Your task to perform on an android device: Go to Reddit.com Image 0: 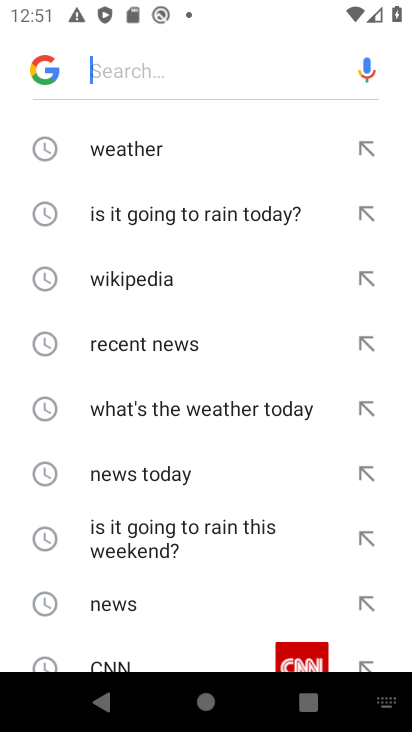
Step 0: press home button
Your task to perform on an android device: Go to Reddit.com Image 1: 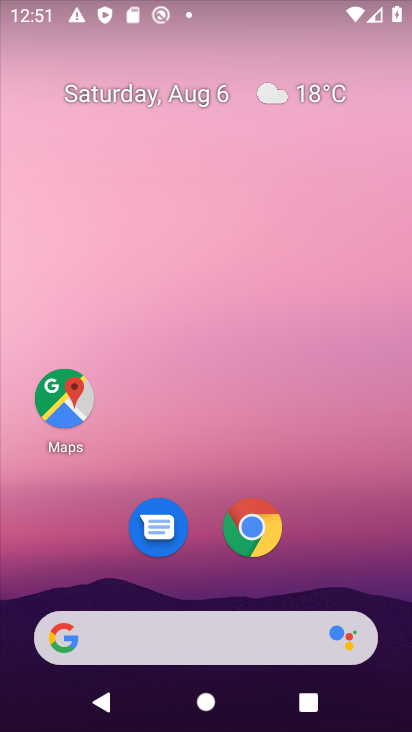
Step 1: drag from (218, 543) to (208, 33)
Your task to perform on an android device: Go to Reddit.com Image 2: 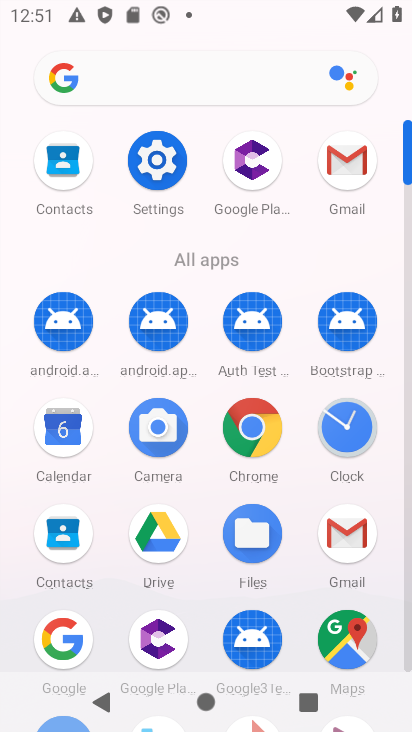
Step 2: click (259, 427)
Your task to perform on an android device: Go to Reddit.com Image 3: 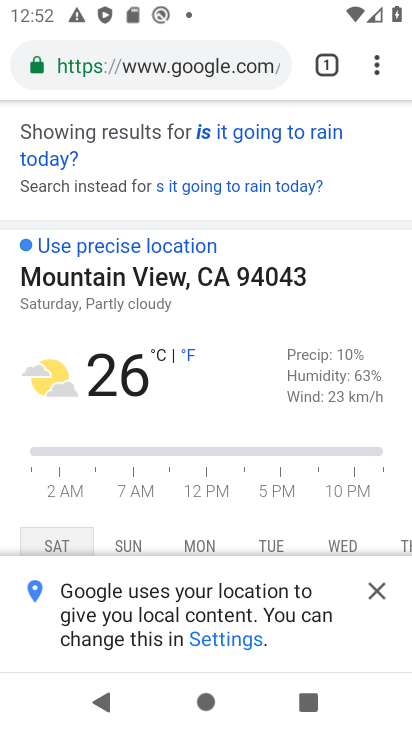
Step 3: click (320, 69)
Your task to perform on an android device: Go to Reddit.com Image 4: 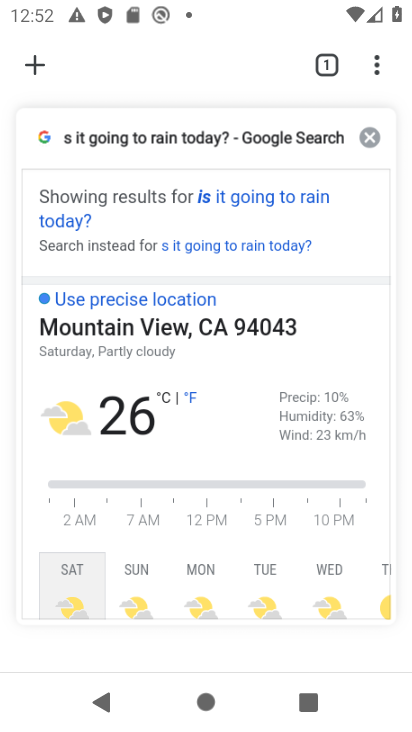
Step 4: click (36, 61)
Your task to perform on an android device: Go to Reddit.com Image 5: 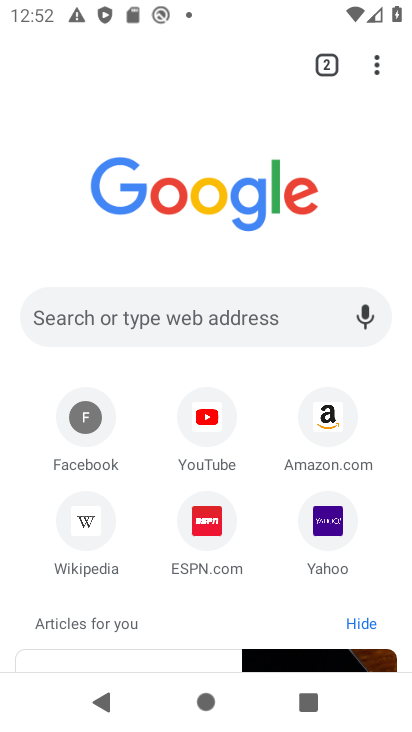
Step 5: drag from (111, 705) to (169, 679)
Your task to perform on an android device: Go to Reddit.com Image 6: 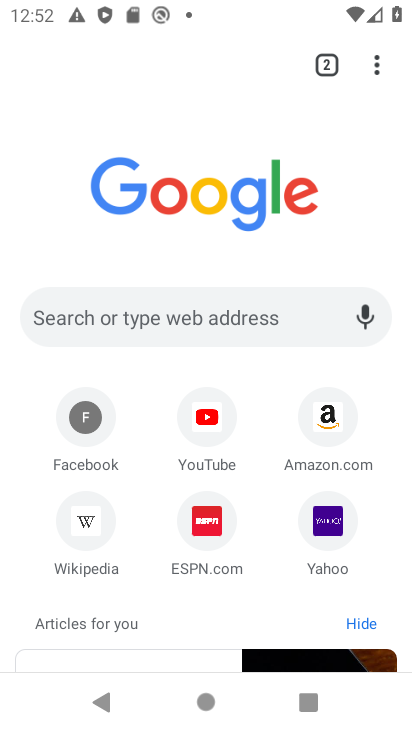
Step 6: click (188, 313)
Your task to perform on an android device: Go to Reddit.com Image 7: 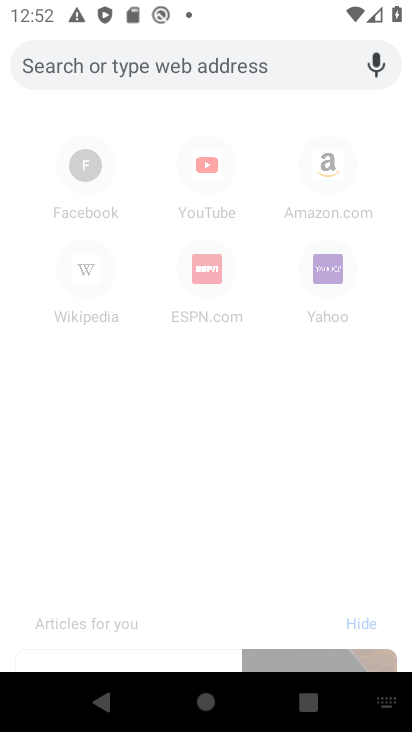
Step 7: type "Reddit.com"
Your task to perform on an android device: Go to Reddit.com Image 8: 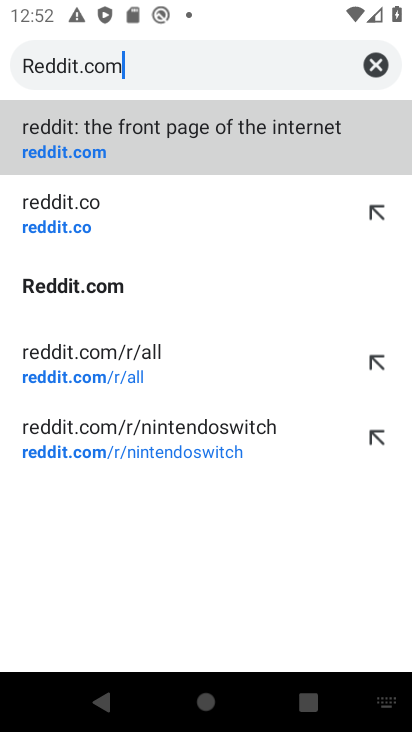
Step 8: type ""
Your task to perform on an android device: Go to Reddit.com Image 9: 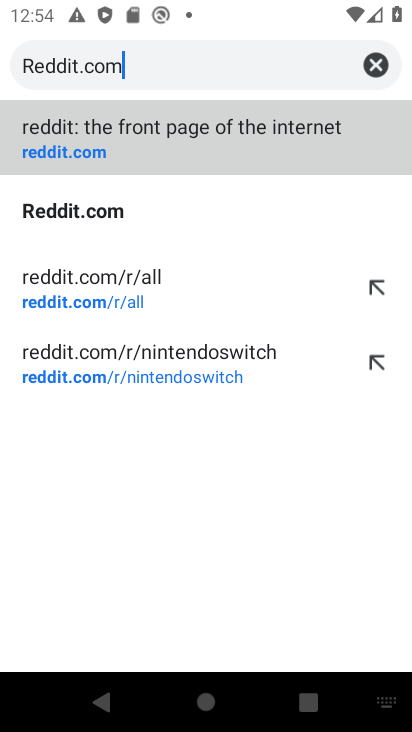
Step 9: click (66, 153)
Your task to perform on an android device: Go to Reddit.com Image 10: 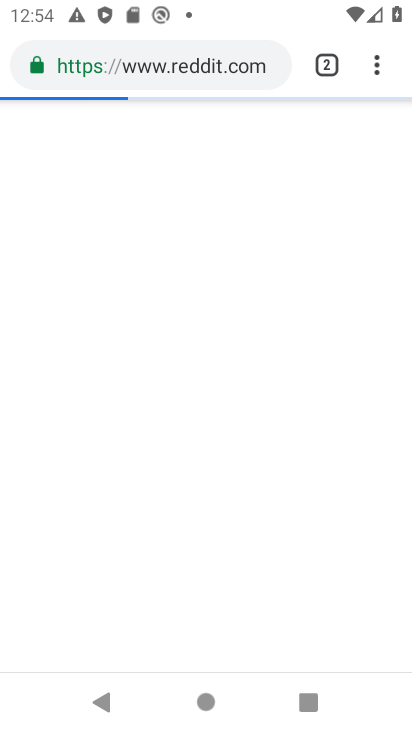
Step 10: task complete